Your task to perform on an android device: see sites visited before in the chrome app Image 0: 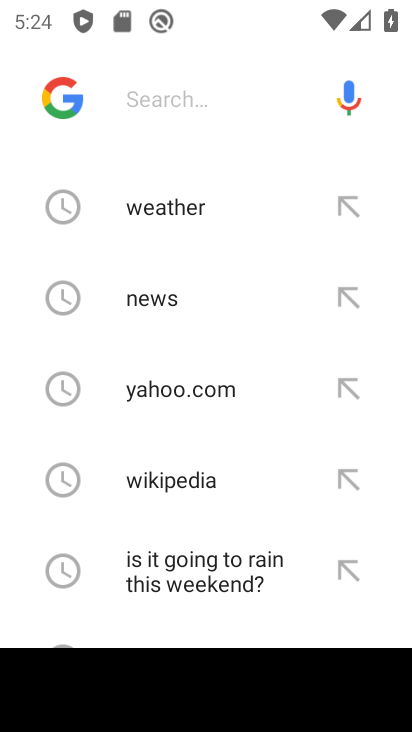
Step 0: press home button
Your task to perform on an android device: see sites visited before in the chrome app Image 1: 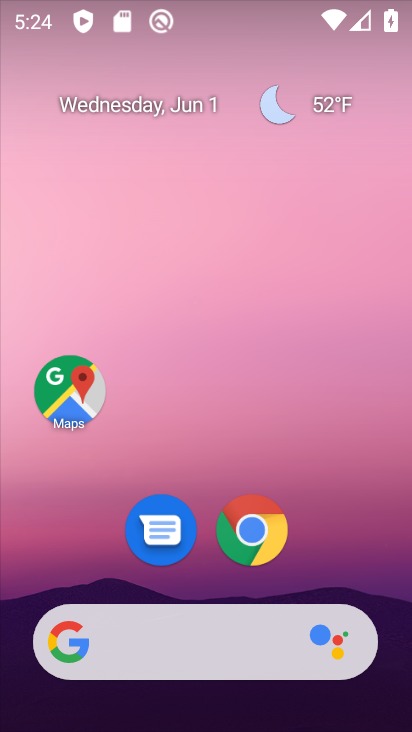
Step 1: click (278, 531)
Your task to perform on an android device: see sites visited before in the chrome app Image 2: 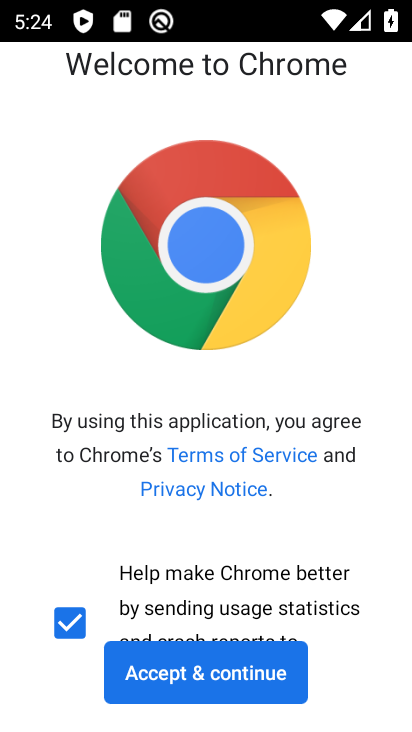
Step 2: click (246, 665)
Your task to perform on an android device: see sites visited before in the chrome app Image 3: 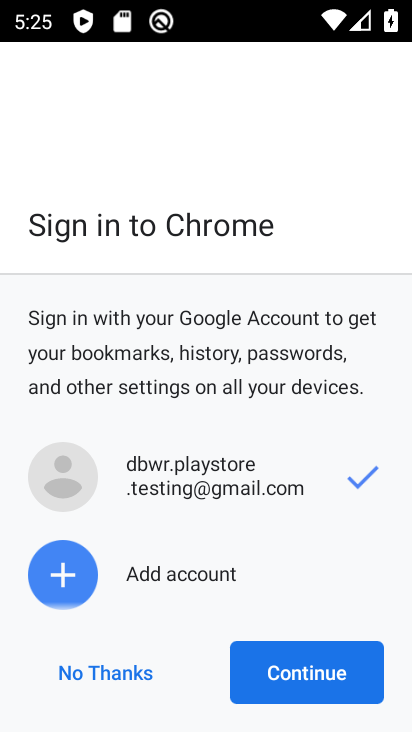
Step 3: click (340, 680)
Your task to perform on an android device: see sites visited before in the chrome app Image 4: 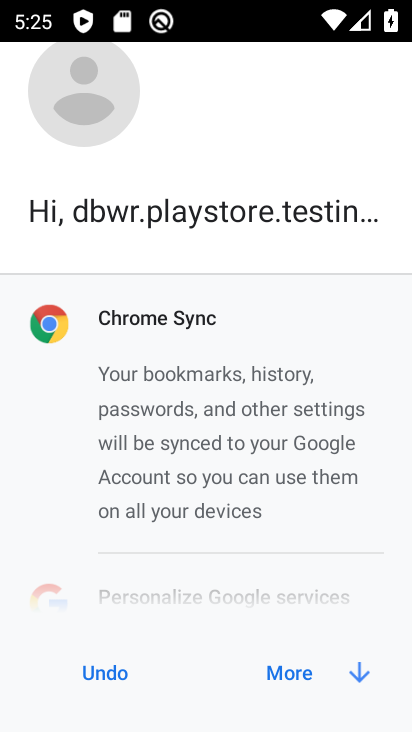
Step 4: click (341, 673)
Your task to perform on an android device: see sites visited before in the chrome app Image 5: 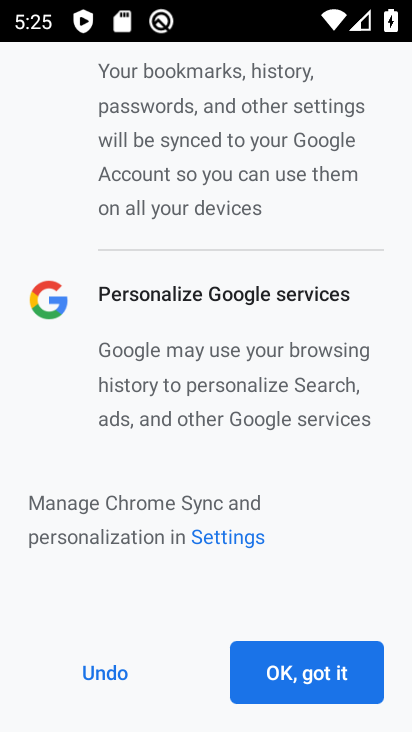
Step 5: click (341, 673)
Your task to perform on an android device: see sites visited before in the chrome app Image 6: 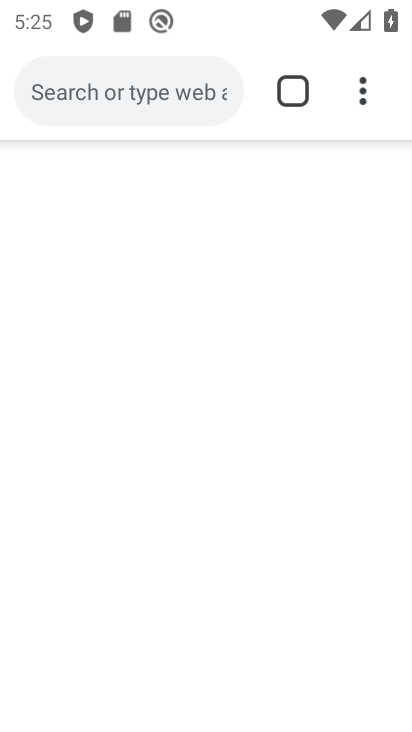
Step 6: task complete